Your task to perform on an android device: Open calendar and show me the first week of next month Image 0: 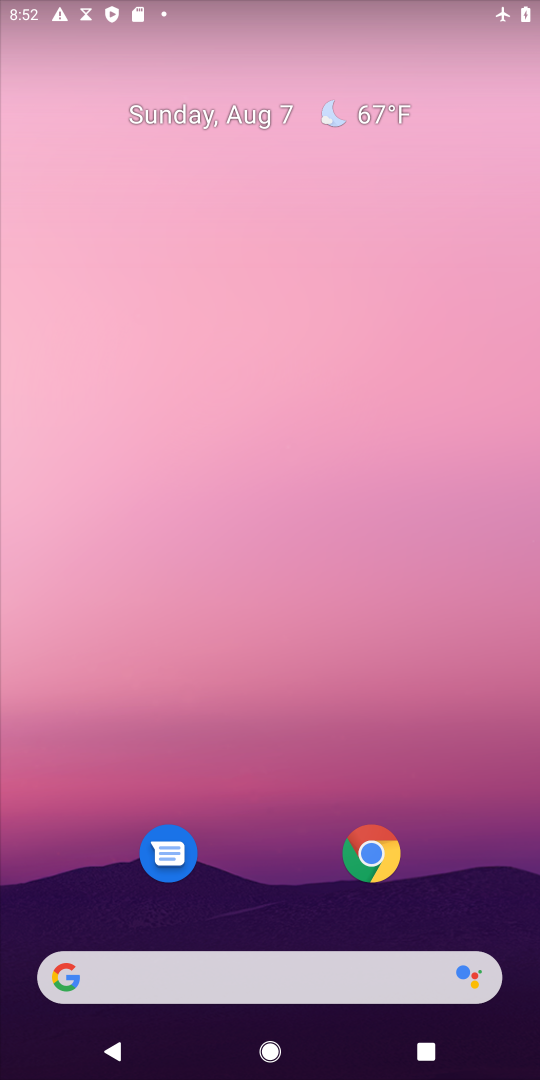
Step 0: drag from (226, 892) to (286, 242)
Your task to perform on an android device: Open calendar and show me the first week of next month Image 1: 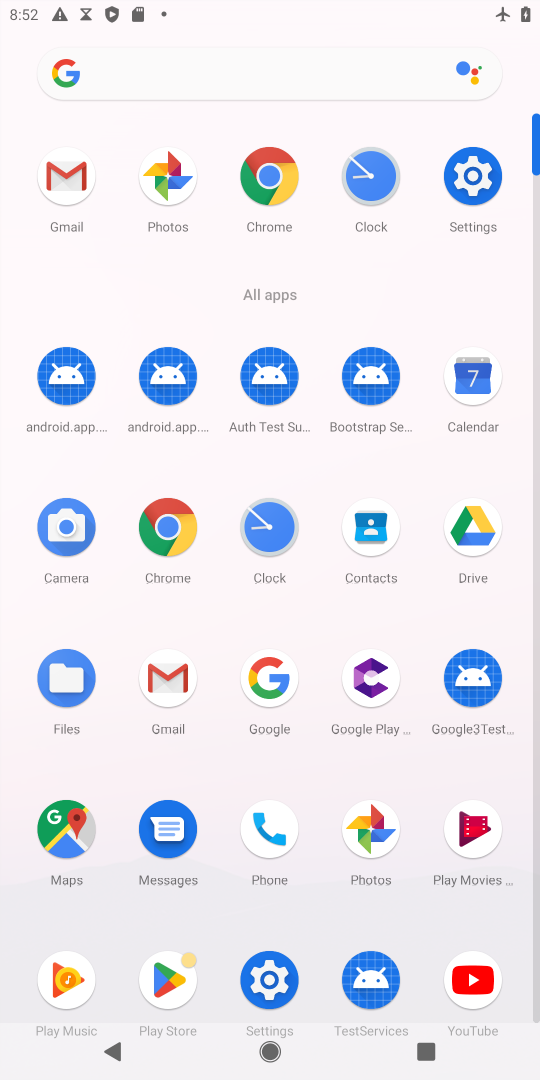
Step 1: click (457, 362)
Your task to perform on an android device: Open calendar and show me the first week of next month Image 2: 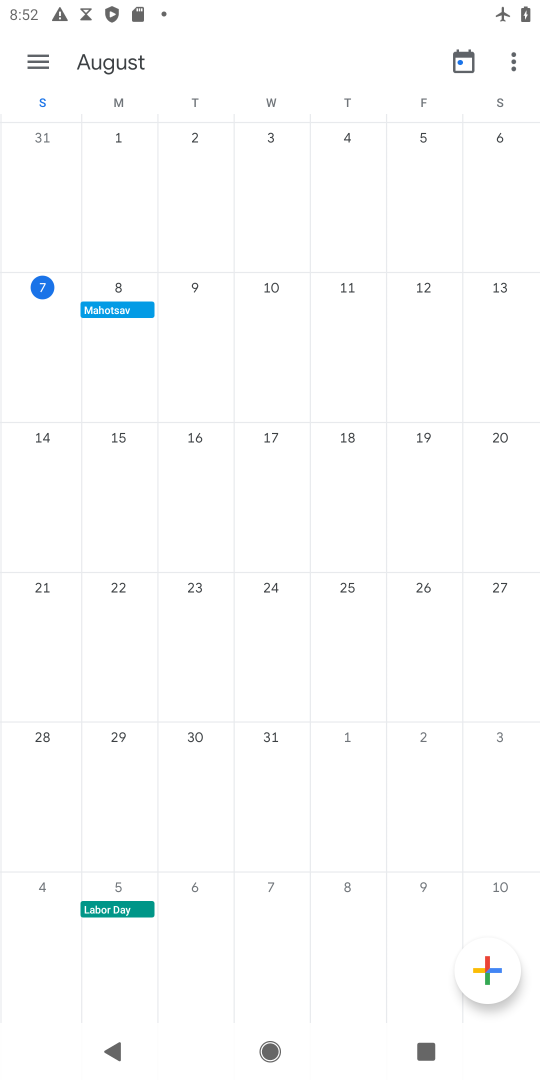
Step 2: click (35, 61)
Your task to perform on an android device: Open calendar and show me the first week of next month Image 3: 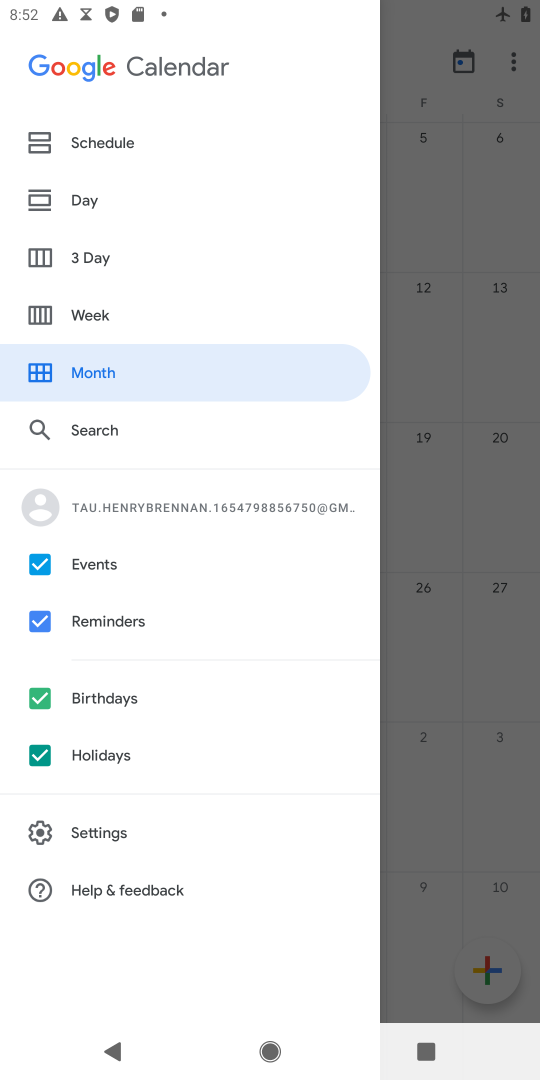
Step 3: click (125, 317)
Your task to perform on an android device: Open calendar and show me the first week of next month Image 4: 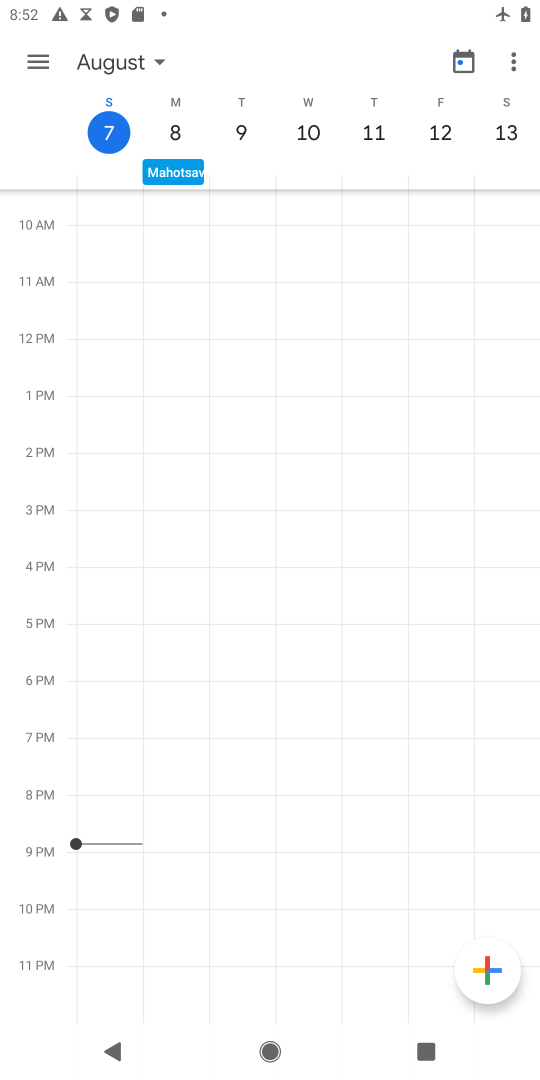
Step 4: task complete